Your task to perform on an android device: Open Android settings Image 0: 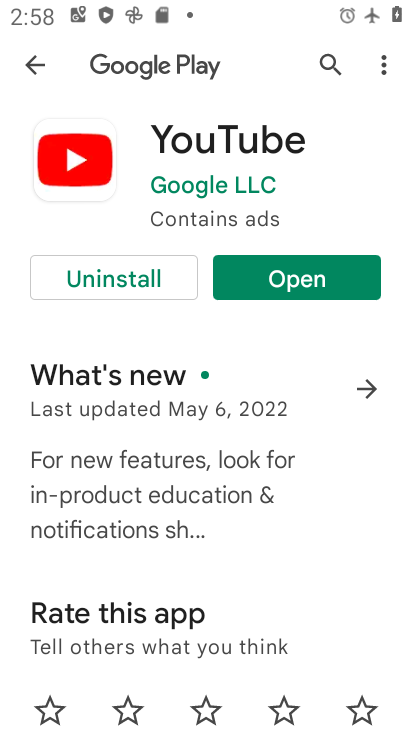
Step 0: press home button
Your task to perform on an android device: Open Android settings Image 1: 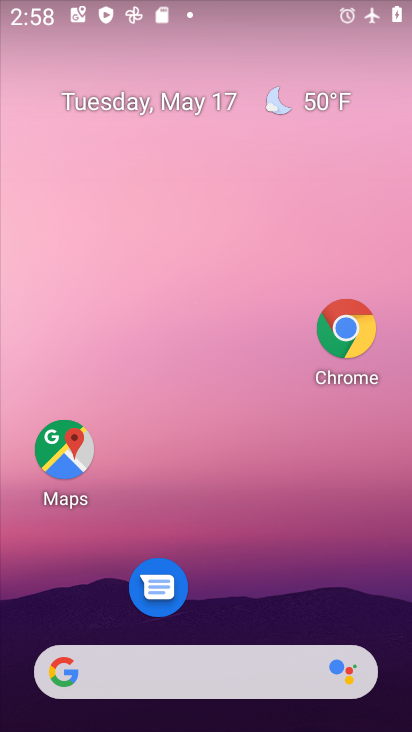
Step 1: drag from (289, 633) to (268, 154)
Your task to perform on an android device: Open Android settings Image 2: 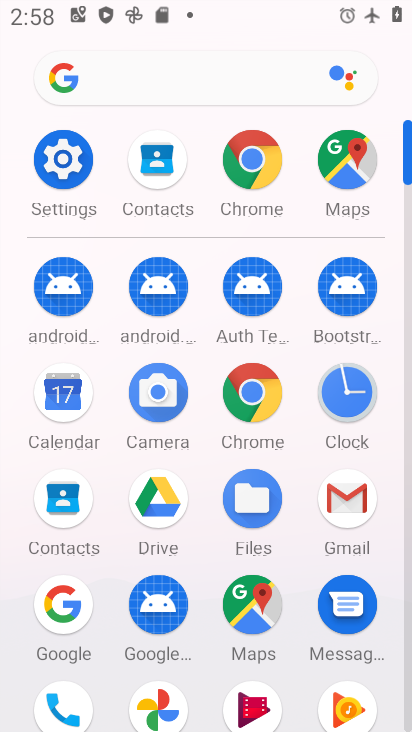
Step 2: click (76, 170)
Your task to perform on an android device: Open Android settings Image 3: 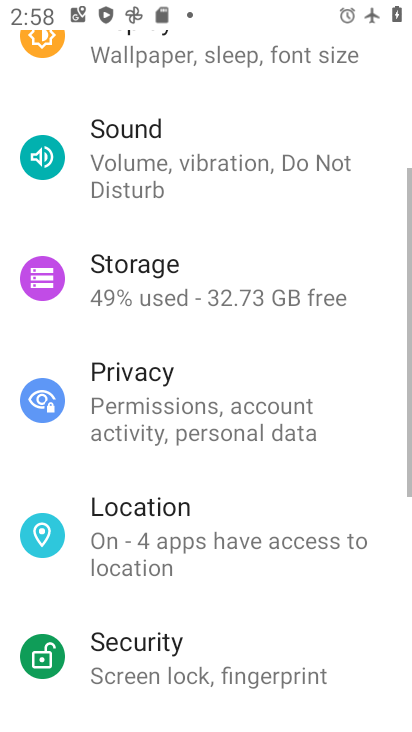
Step 3: task complete